Your task to perform on an android device: open wifi settings Image 0: 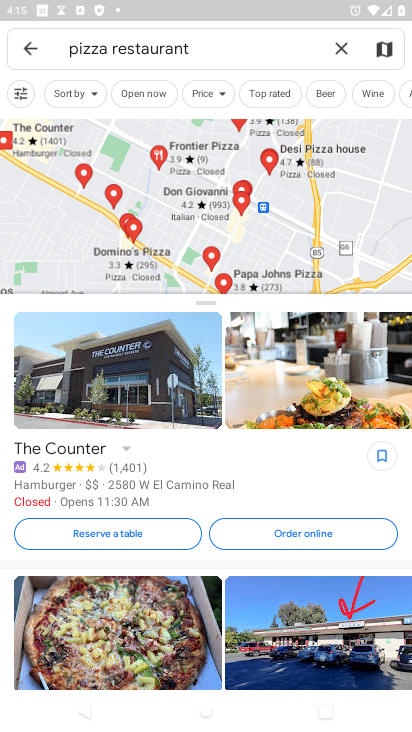
Step 0: press home button
Your task to perform on an android device: open wifi settings Image 1: 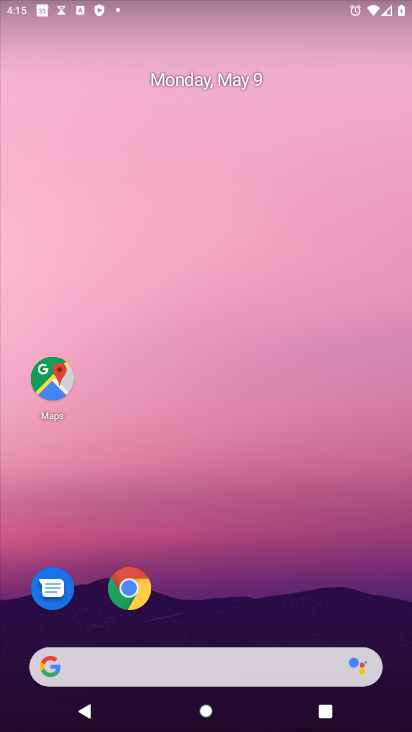
Step 1: drag from (285, 546) to (173, 92)
Your task to perform on an android device: open wifi settings Image 2: 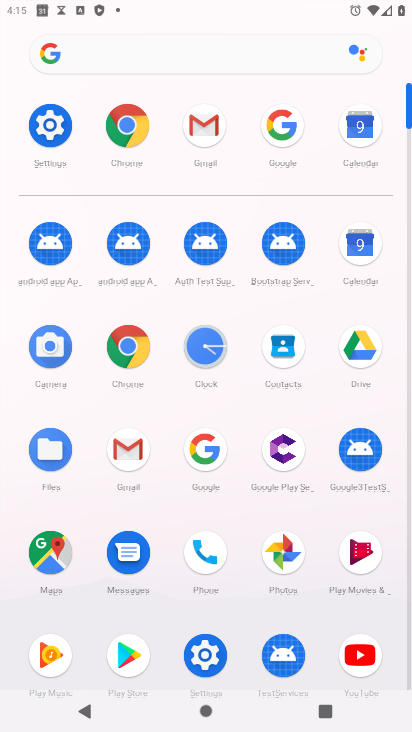
Step 2: click (204, 441)
Your task to perform on an android device: open wifi settings Image 3: 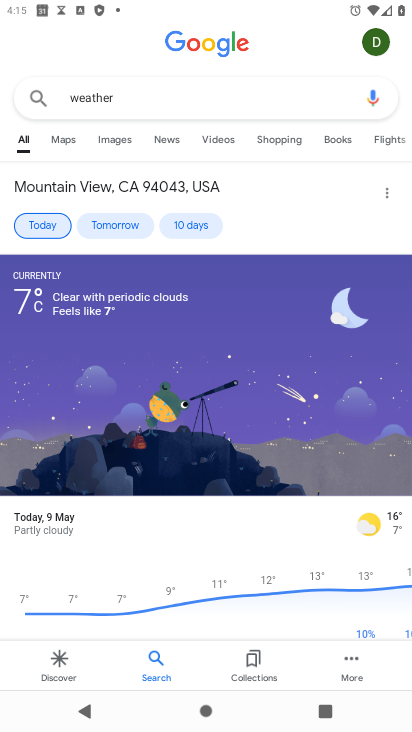
Step 3: press home button
Your task to perform on an android device: open wifi settings Image 4: 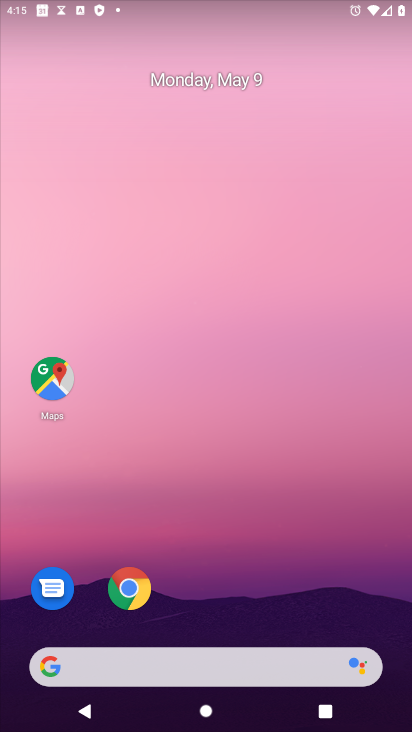
Step 4: drag from (258, 481) to (175, 64)
Your task to perform on an android device: open wifi settings Image 5: 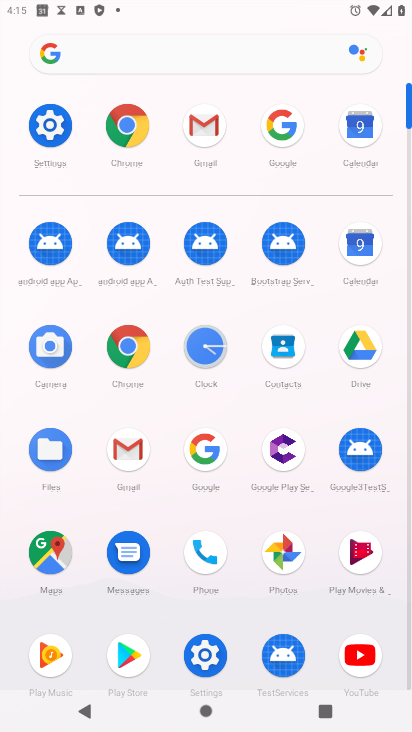
Step 5: click (44, 130)
Your task to perform on an android device: open wifi settings Image 6: 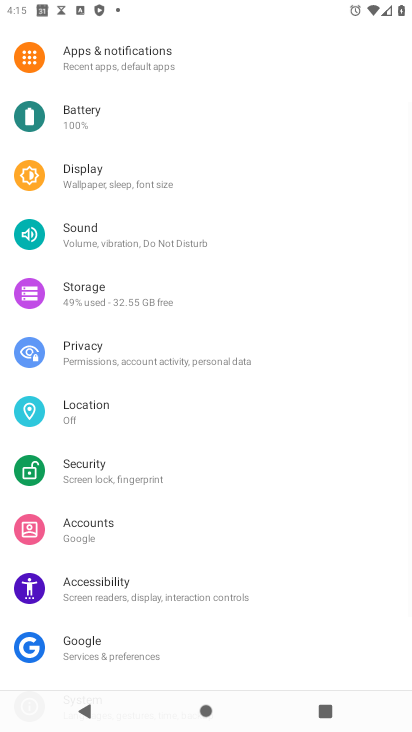
Step 6: drag from (153, 108) to (185, 585)
Your task to perform on an android device: open wifi settings Image 7: 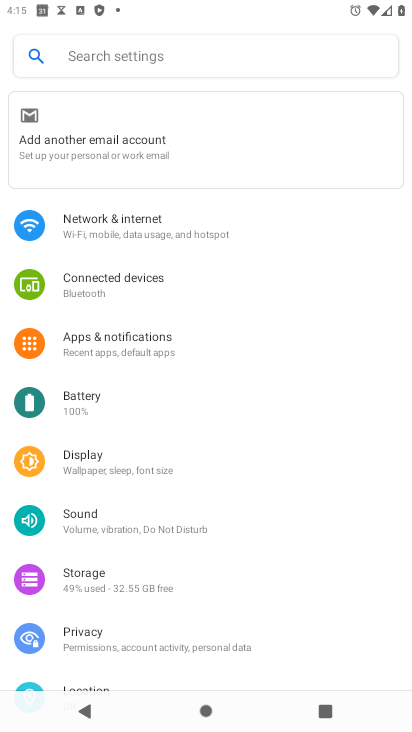
Step 7: click (174, 239)
Your task to perform on an android device: open wifi settings Image 8: 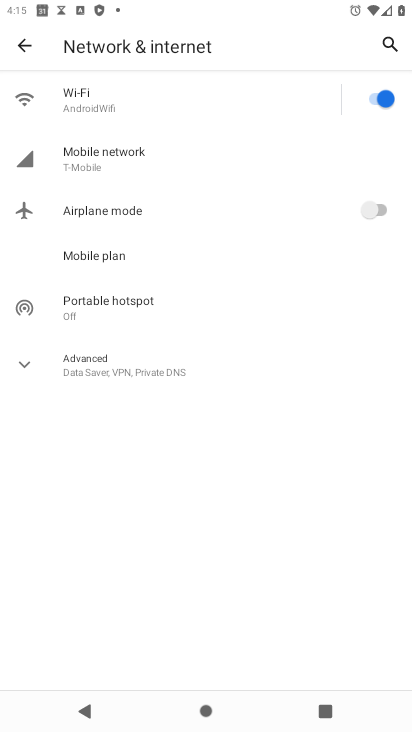
Step 8: click (181, 109)
Your task to perform on an android device: open wifi settings Image 9: 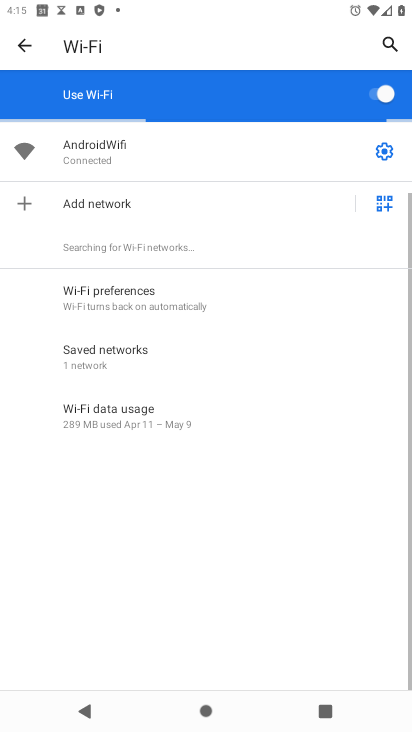
Step 9: task complete